Your task to perform on an android device: What's on my calendar today? Image 0: 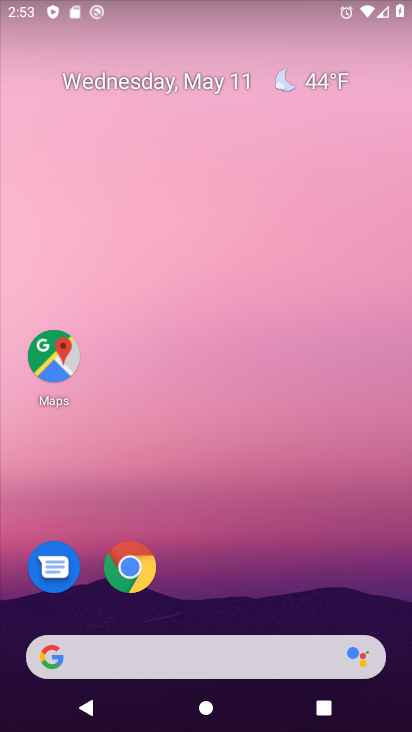
Step 0: drag from (250, 545) to (198, 2)
Your task to perform on an android device: What's on my calendar today? Image 1: 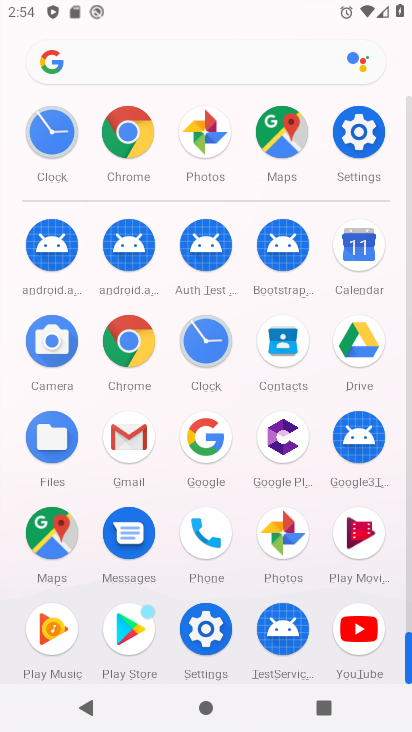
Step 1: drag from (0, 458) to (3, 176)
Your task to perform on an android device: What's on my calendar today? Image 2: 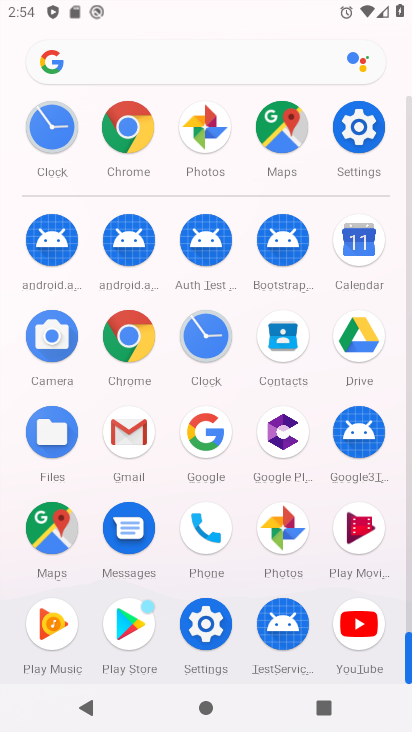
Step 2: drag from (11, 555) to (5, 267)
Your task to perform on an android device: What's on my calendar today? Image 3: 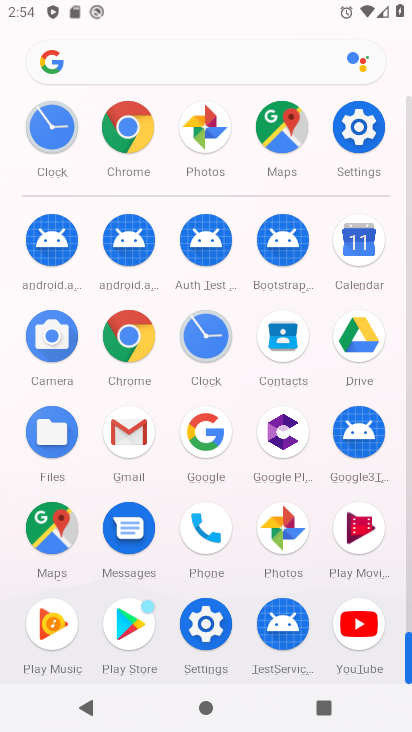
Step 3: click (360, 235)
Your task to perform on an android device: What's on my calendar today? Image 4: 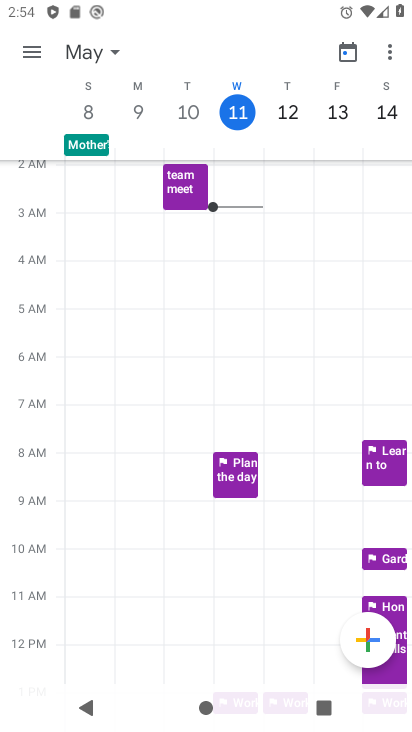
Step 4: click (229, 100)
Your task to perform on an android device: What's on my calendar today? Image 5: 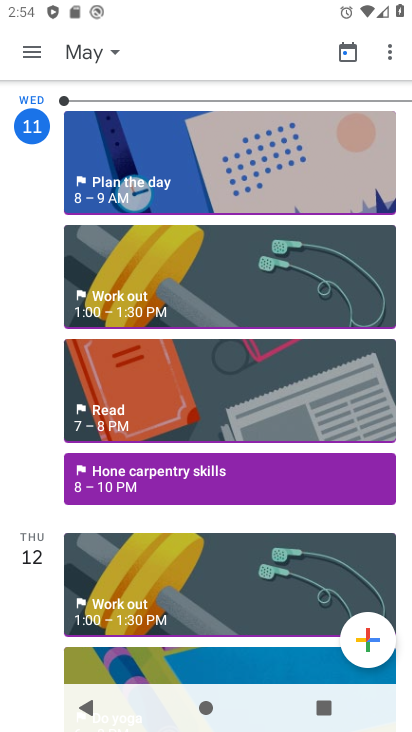
Step 5: task complete